Your task to perform on an android device: Open Google Chrome and click the shortcut for Amazon.com Image 0: 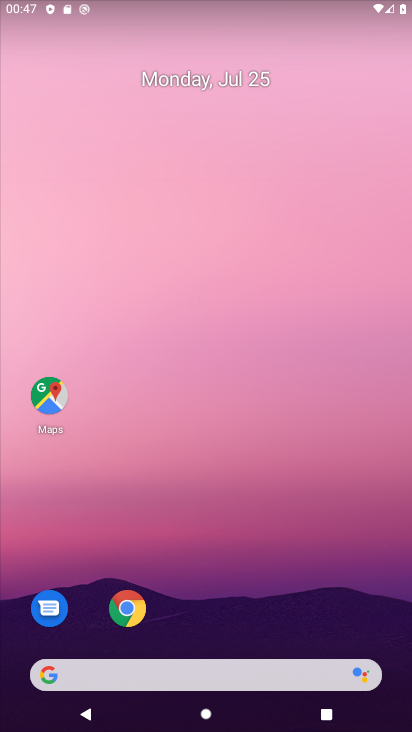
Step 0: click (119, 607)
Your task to perform on an android device: Open Google Chrome and click the shortcut for Amazon.com Image 1: 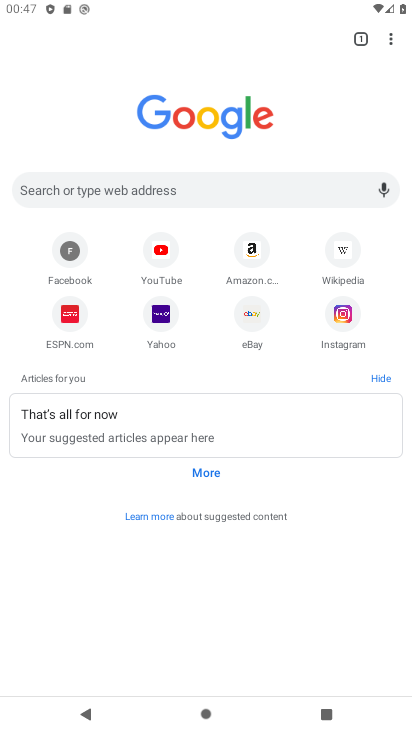
Step 1: click (391, 28)
Your task to perform on an android device: Open Google Chrome and click the shortcut for Amazon.com Image 2: 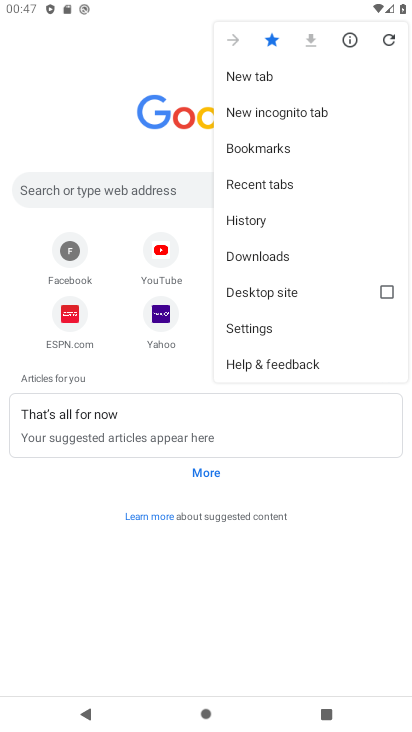
Step 2: click (277, 527)
Your task to perform on an android device: Open Google Chrome and click the shortcut for Amazon.com Image 3: 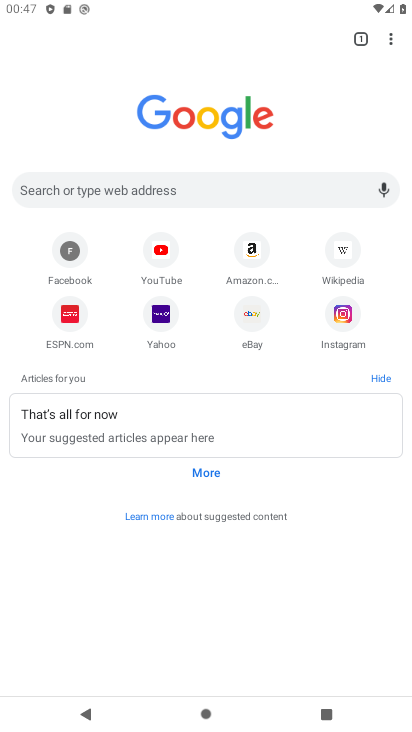
Step 3: click (241, 240)
Your task to perform on an android device: Open Google Chrome and click the shortcut for Amazon.com Image 4: 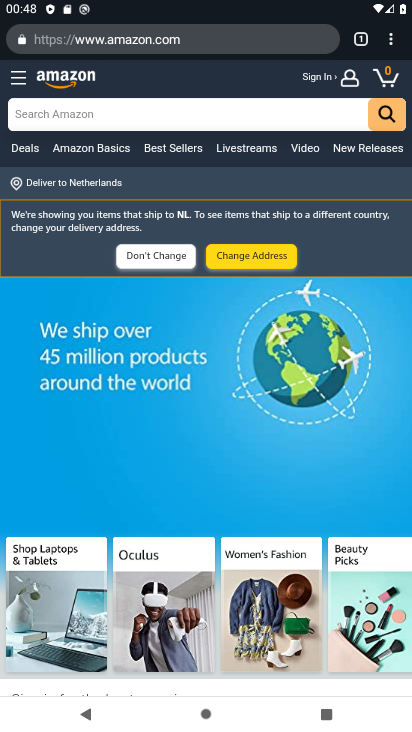
Step 4: task complete